Your task to perform on an android device: Clear all items from cart on ebay.com. Search for "razer nari" on ebay.com, select the first entry, and add it to the cart. Image 0: 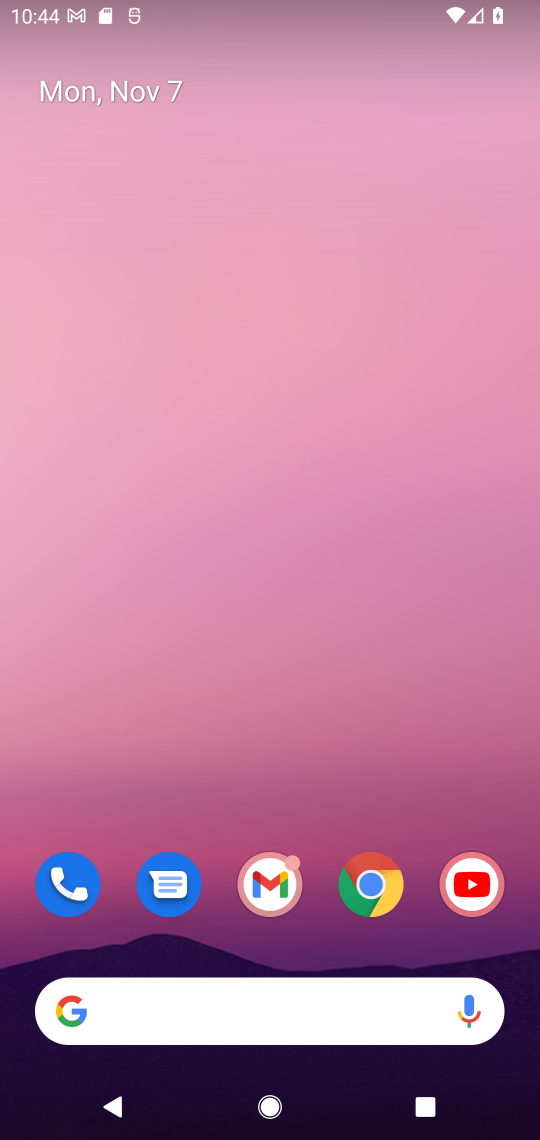
Step 0: click (383, 885)
Your task to perform on an android device: Clear all items from cart on ebay.com. Search for "razer nari" on ebay.com, select the first entry, and add it to the cart. Image 1: 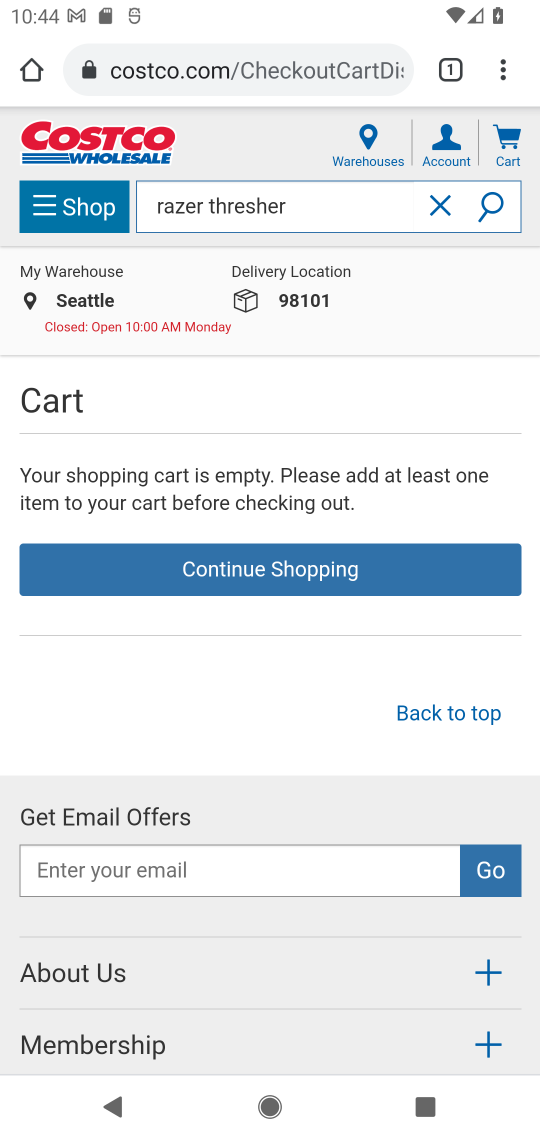
Step 1: click (257, 52)
Your task to perform on an android device: Clear all items from cart on ebay.com. Search for "razer nari" on ebay.com, select the first entry, and add it to the cart. Image 2: 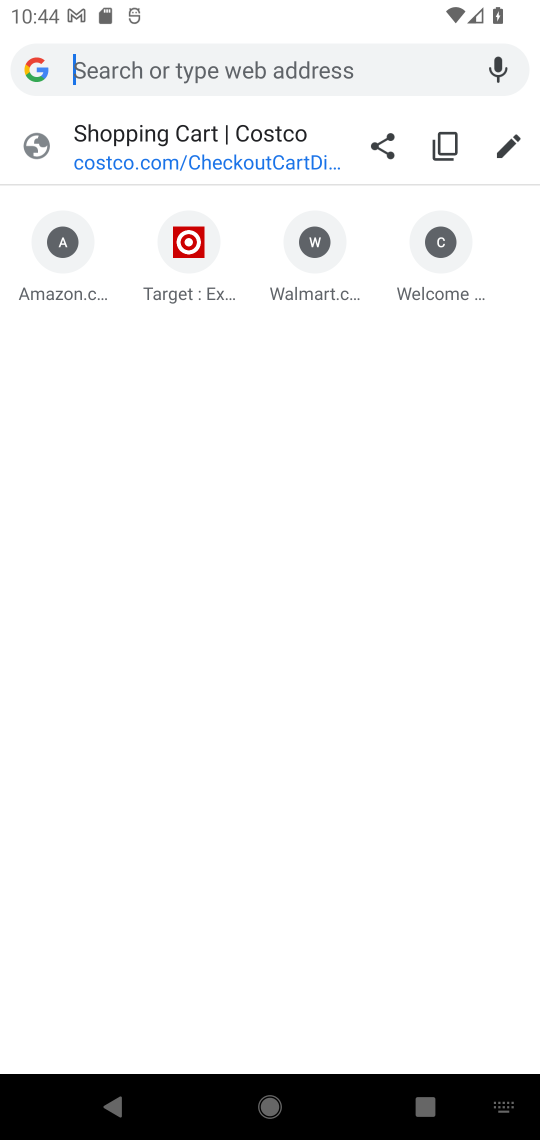
Step 2: type "ebay.com"
Your task to perform on an android device: Clear all items from cart on ebay.com. Search for "razer nari" on ebay.com, select the first entry, and add it to the cart. Image 3: 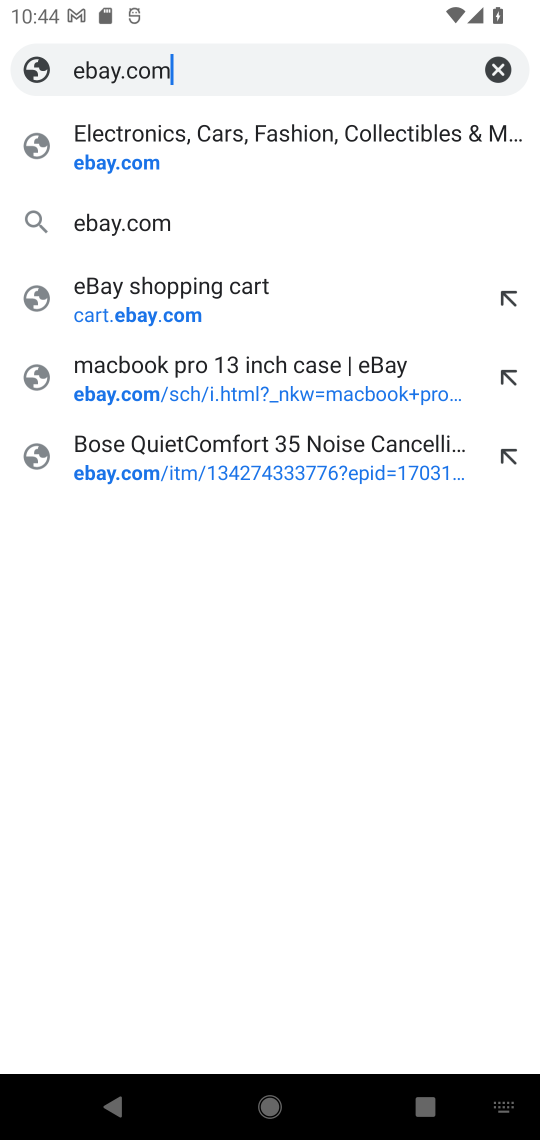
Step 3: click (143, 223)
Your task to perform on an android device: Clear all items from cart on ebay.com. Search for "razer nari" on ebay.com, select the first entry, and add it to the cart. Image 4: 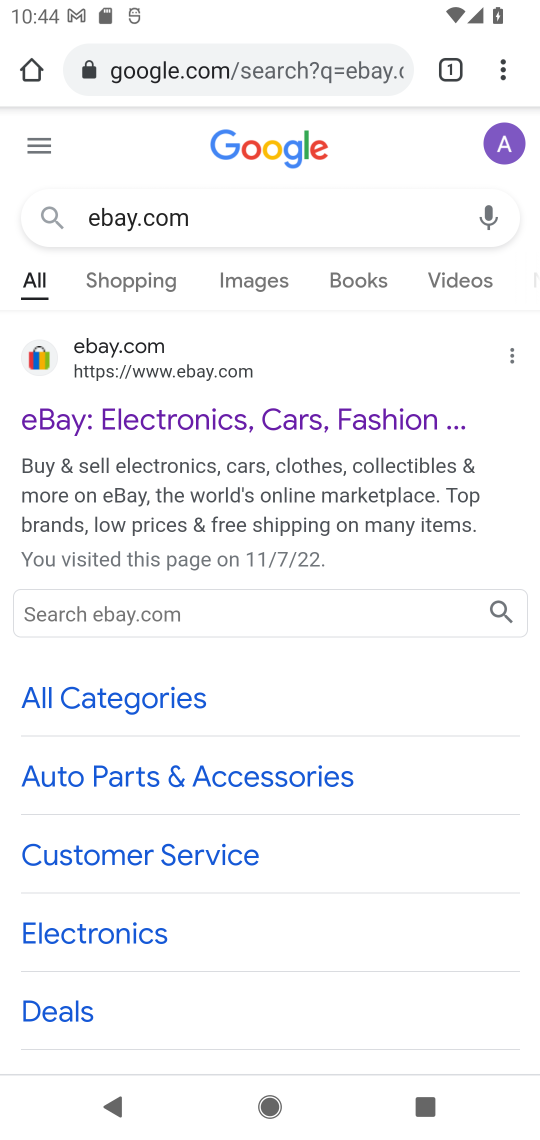
Step 4: click (172, 356)
Your task to perform on an android device: Clear all items from cart on ebay.com. Search for "razer nari" on ebay.com, select the first entry, and add it to the cart. Image 5: 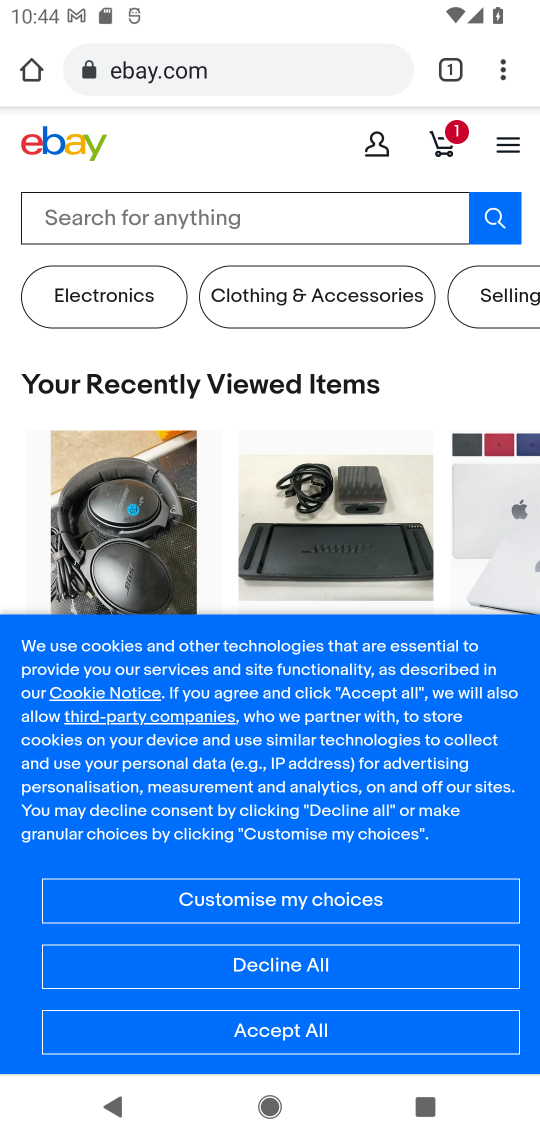
Step 5: click (443, 141)
Your task to perform on an android device: Clear all items from cart on ebay.com. Search for "razer nari" on ebay.com, select the first entry, and add it to the cart. Image 6: 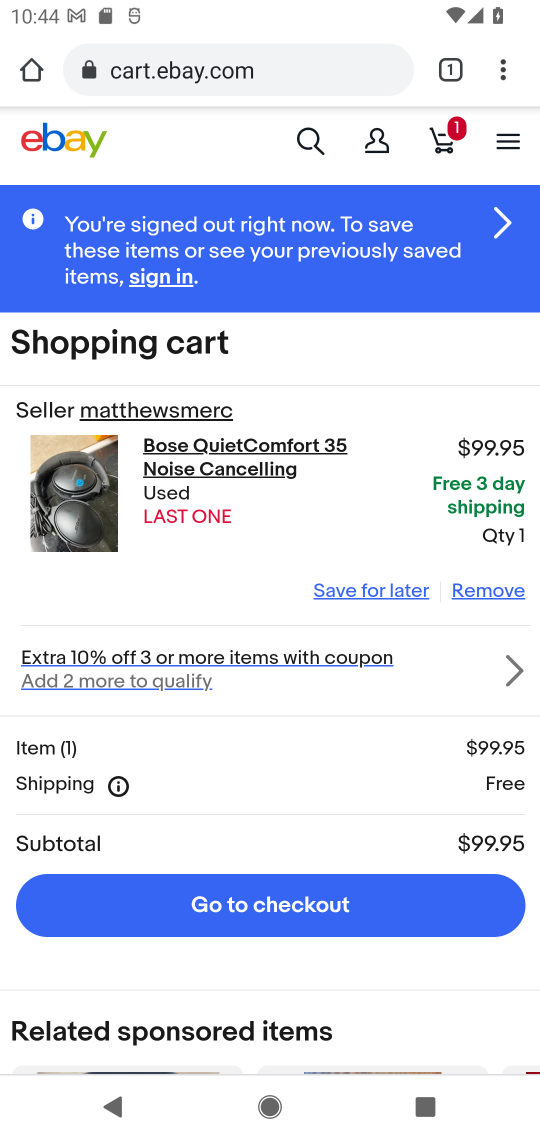
Step 6: click (473, 593)
Your task to perform on an android device: Clear all items from cart on ebay.com. Search for "razer nari" on ebay.com, select the first entry, and add it to the cart. Image 7: 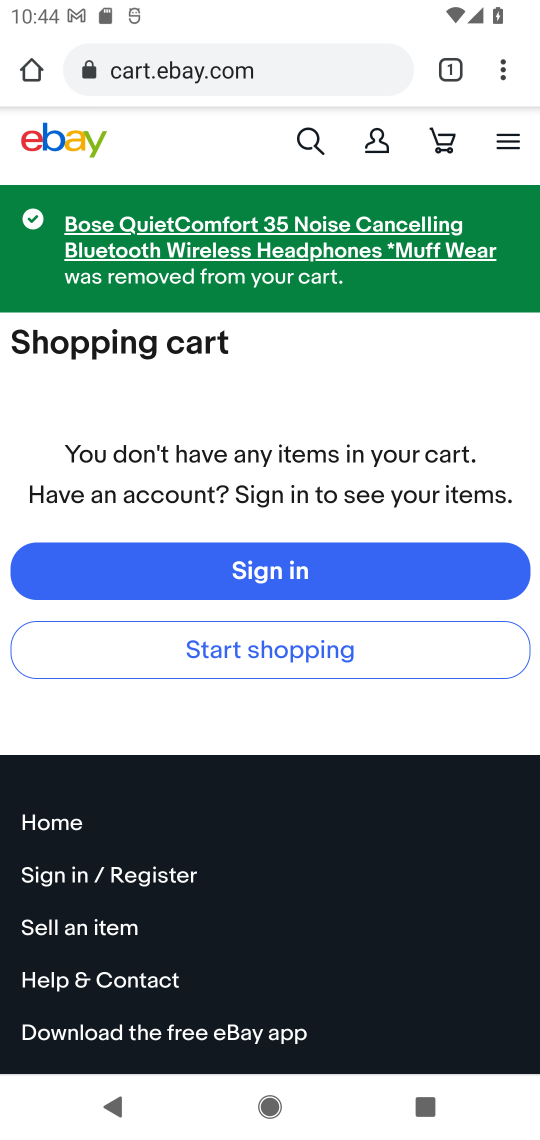
Step 7: click (315, 145)
Your task to perform on an android device: Clear all items from cart on ebay.com. Search for "razer nari" on ebay.com, select the first entry, and add it to the cart. Image 8: 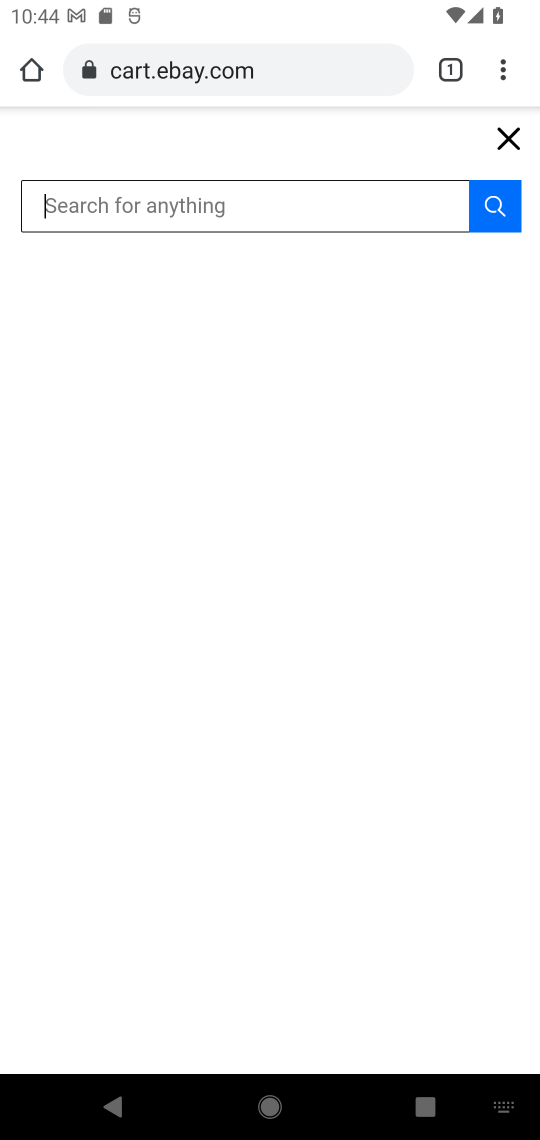
Step 8: type "razer nari"
Your task to perform on an android device: Clear all items from cart on ebay.com. Search for "razer nari" on ebay.com, select the first entry, and add it to the cart. Image 9: 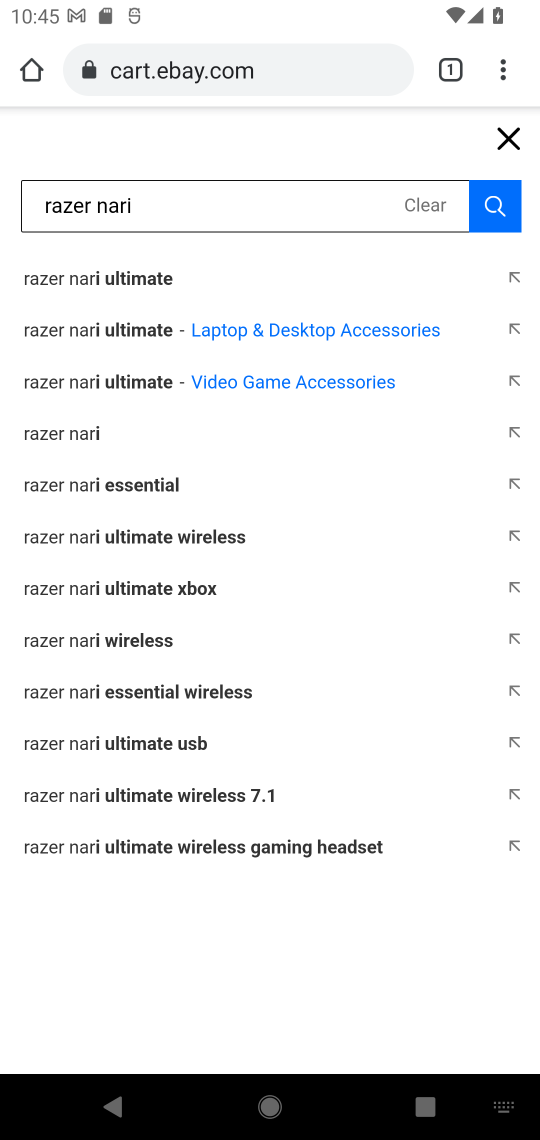
Step 9: click (95, 437)
Your task to perform on an android device: Clear all items from cart on ebay.com. Search for "razer nari" on ebay.com, select the first entry, and add it to the cart. Image 10: 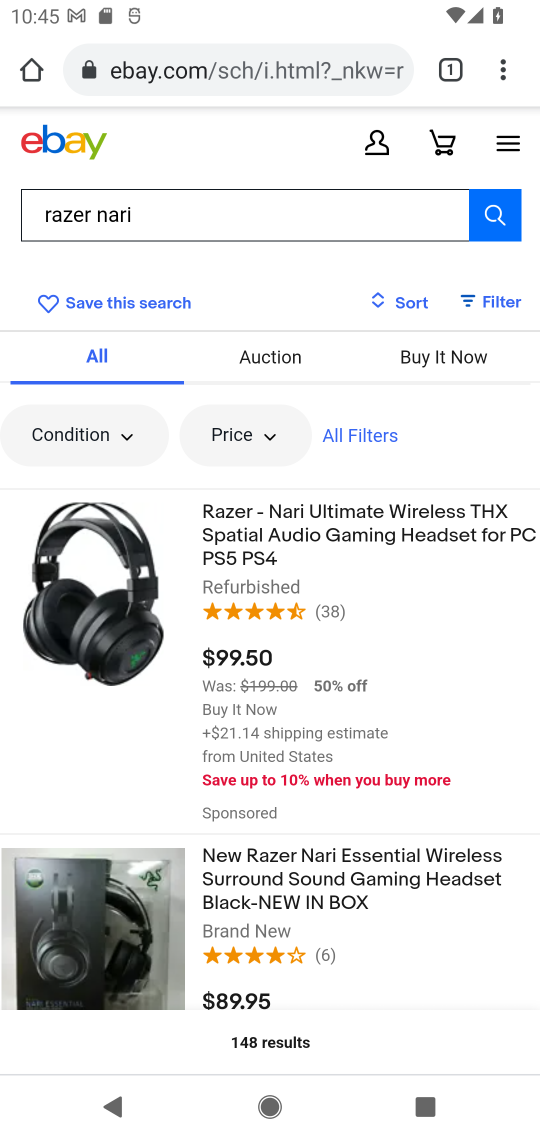
Step 10: click (97, 633)
Your task to perform on an android device: Clear all items from cart on ebay.com. Search for "razer nari" on ebay.com, select the first entry, and add it to the cart. Image 11: 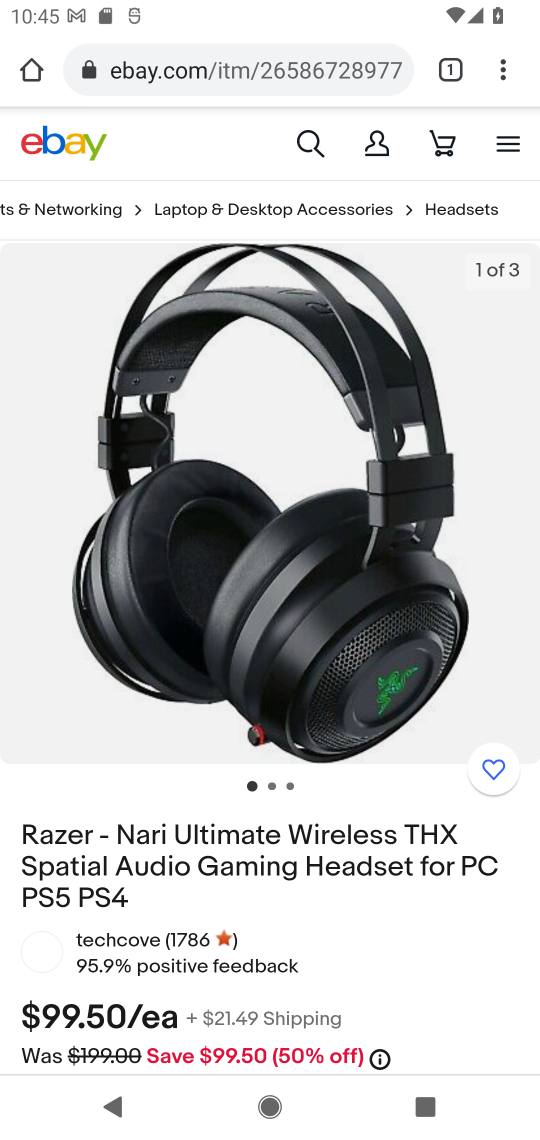
Step 11: drag from (420, 866) to (386, 457)
Your task to perform on an android device: Clear all items from cart on ebay.com. Search for "razer nari" on ebay.com, select the first entry, and add it to the cart. Image 12: 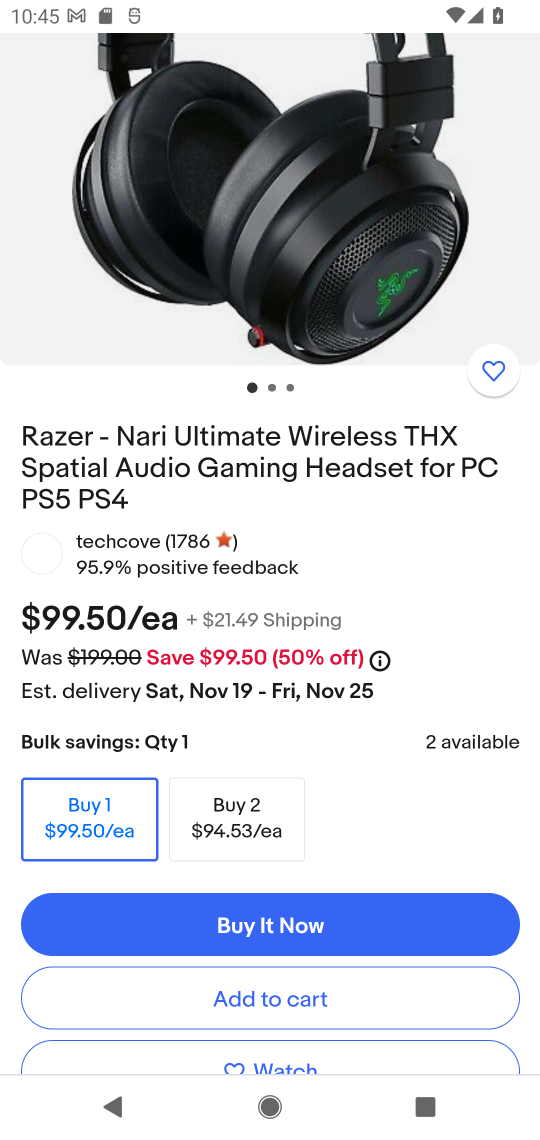
Step 12: click (295, 989)
Your task to perform on an android device: Clear all items from cart on ebay.com. Search for "razer nari" on ebay.com, select the first entry, and add it to the cart. Image 13: 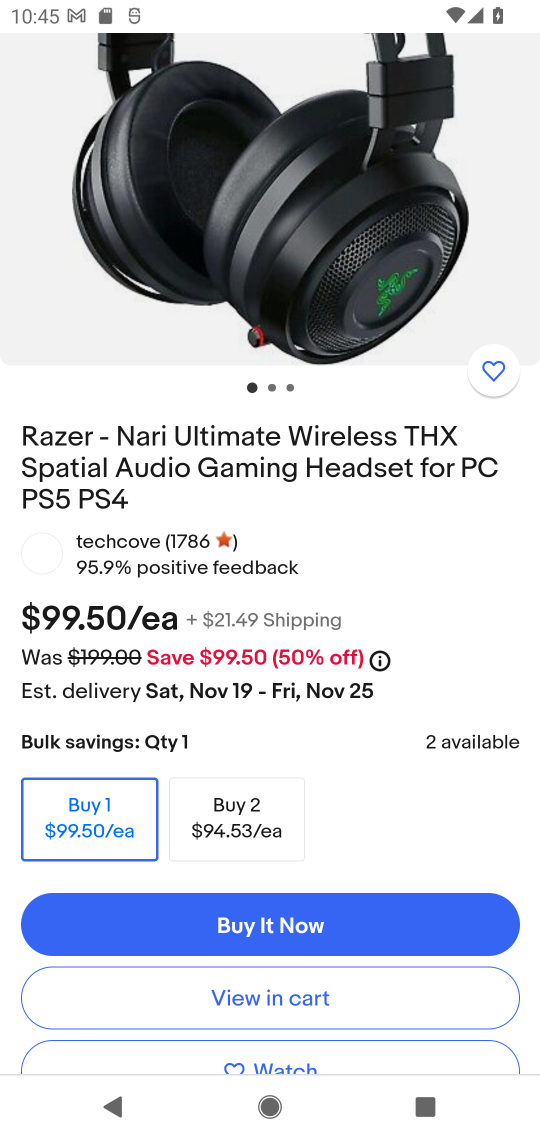
Step 13: click (286, 980)
Your task to perform on an android device: Clear all items from cart on ebay.com. Search for "razer nari" on ebay.com, select the first entry, and add it to the cart. Image 14: 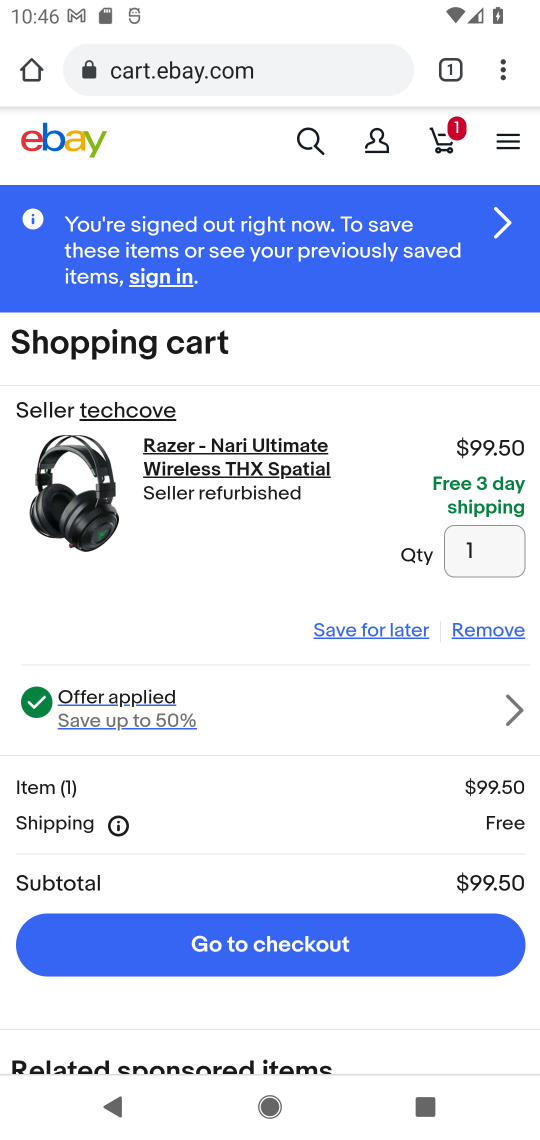
Step 14: task complete